Your task to perform on an android device: Search for pizza restaurants on Maps Image 0: 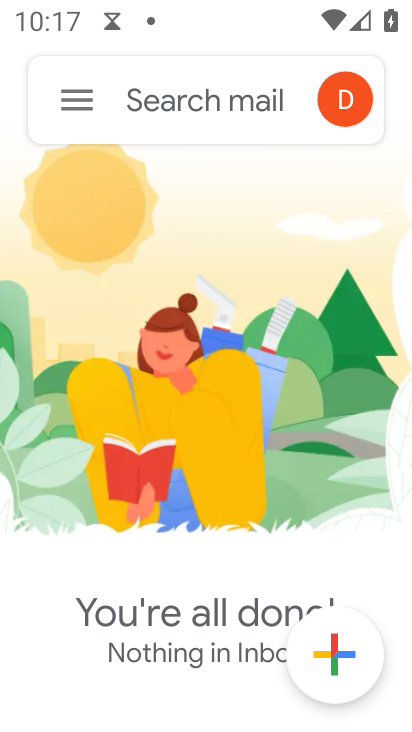
Step 0: press home button
Your task to perform on an android device: Search for pizza restaurants on Maps Image 1: 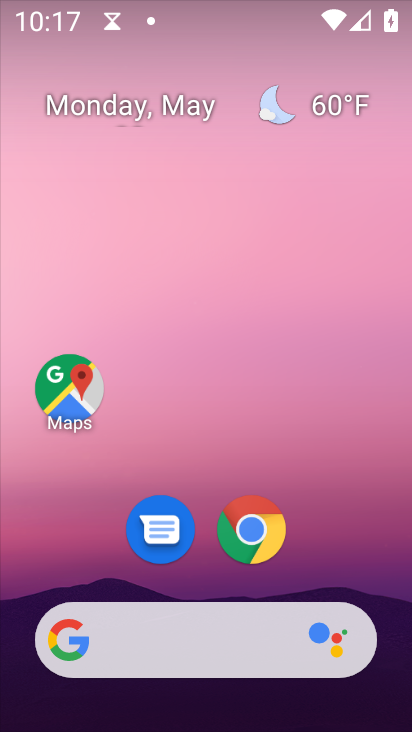
Step 1: drag from (300, 563) to (256, 129)
Your task to perform on an android device: Search for pizza restaurants on Maps Image 2: 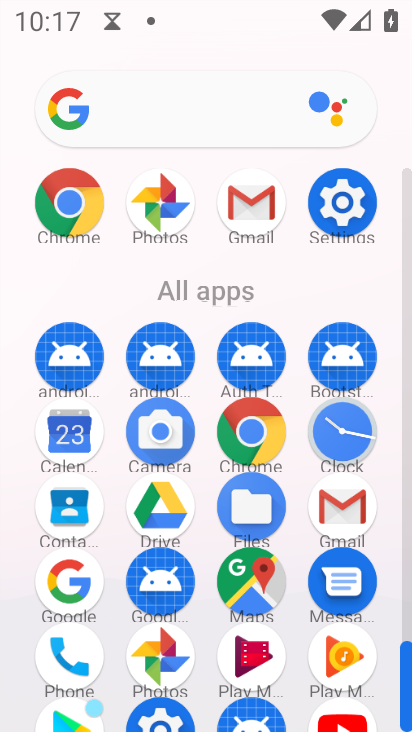
Step 2: click (258, 587)
Your task to perform on an android device: Search for pizza restaurants on Maps Image 3: 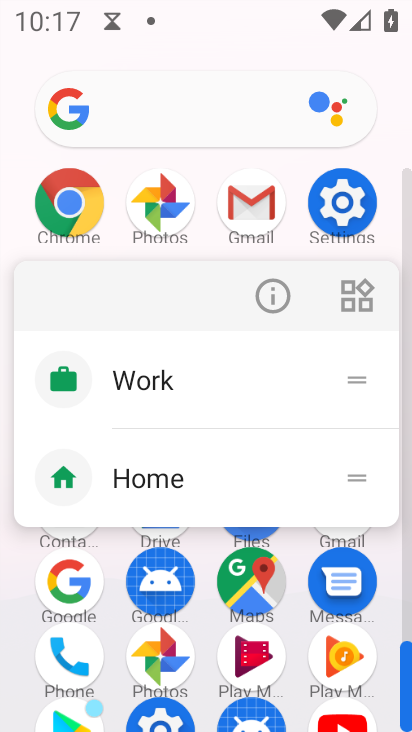
Step 3: click (252, 596)
Your task to perform on an android device: Search for pizza restaurants on Maps Image 4: 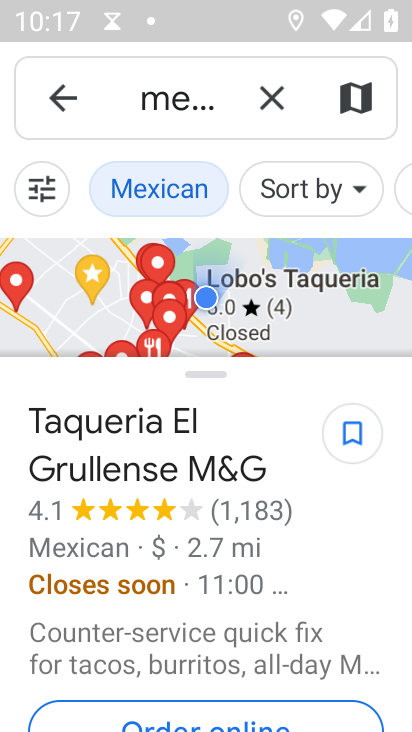
Step 4: click (276, 85)
Your task to perform on an android device: Search for pizza restaurants on Maps Image 5: 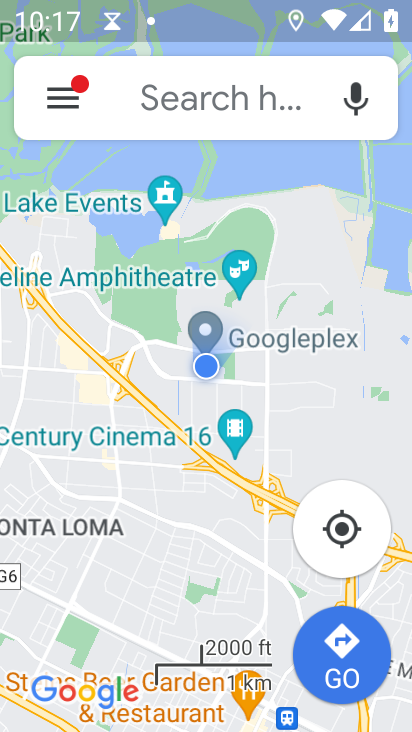
Step 5: click (204, 89)
Your task to perform on an android device: Search for pizza restaurants on Maps Image 6: 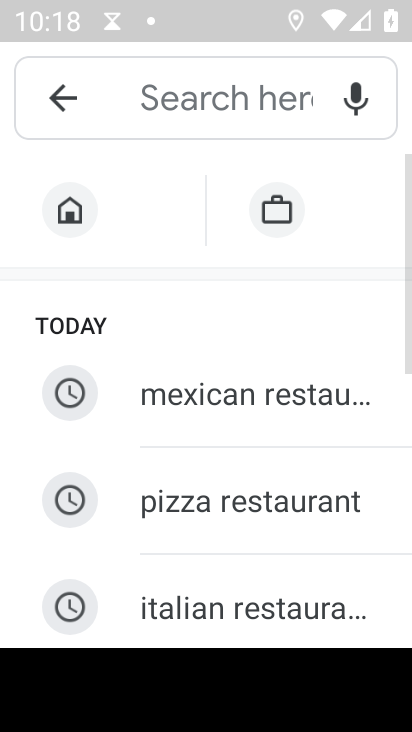
Step 6: click (207, 497)
Your task to perform on an android device: Search for pizza restaurants on Maps Image 7: 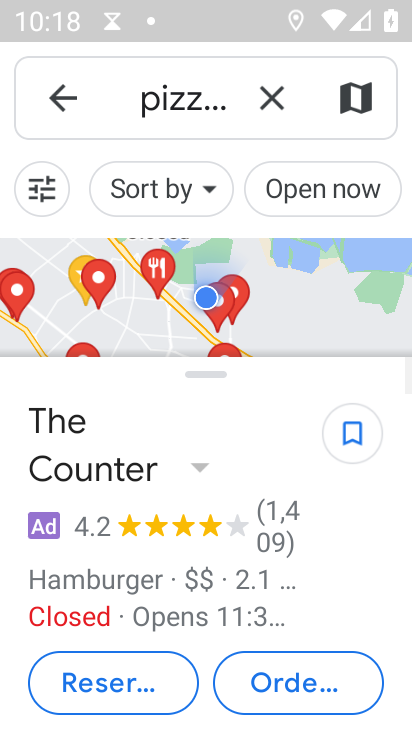
Step 7: task complete